Your task to perform on an android device: Open notification settings Image 0: 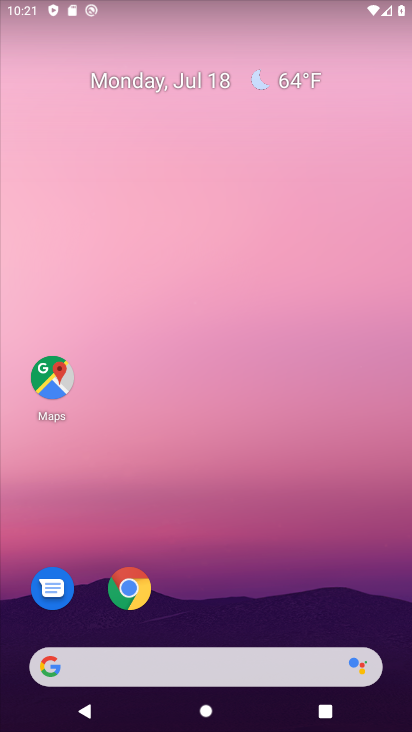
Step 0: drag from (245, 632) to (282, 140)
Your task to perform on an android device: Open notification settings Image 1: 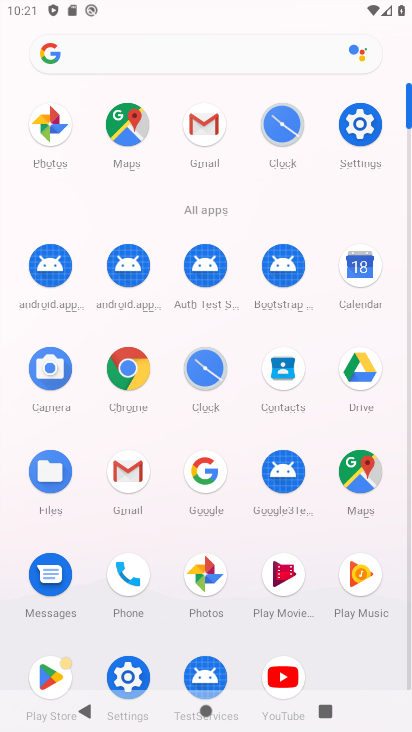
Step 1: click (140, 674)
Your task to perform on an android device: Open notification settings Image 2: 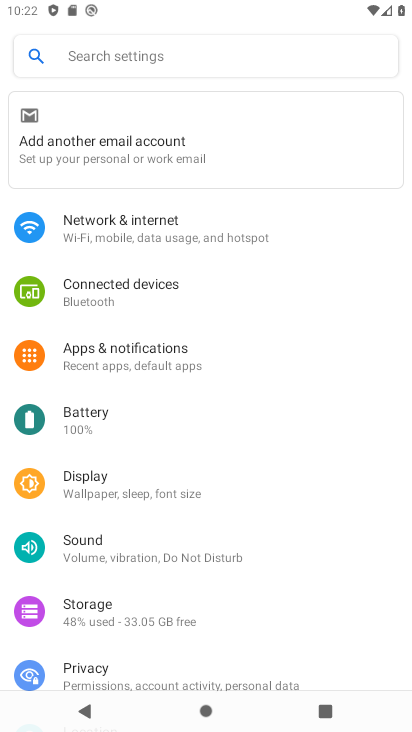
Step 2: click (182, 374)
Your task to perform on an android device: Open notification settings Image 3: 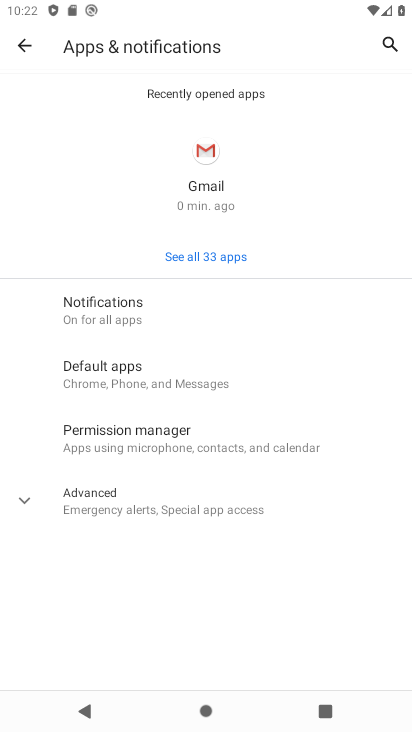
Step 3: click (189, 326)
Your task to perform on an android device: Open notification settings Image 4: 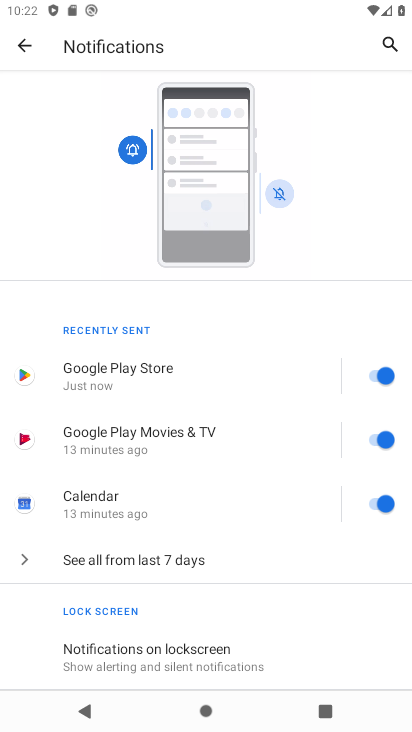
Step 4: task complete